Your task to perform on an android device: turn vacation reply on in the gmail app Image 0: 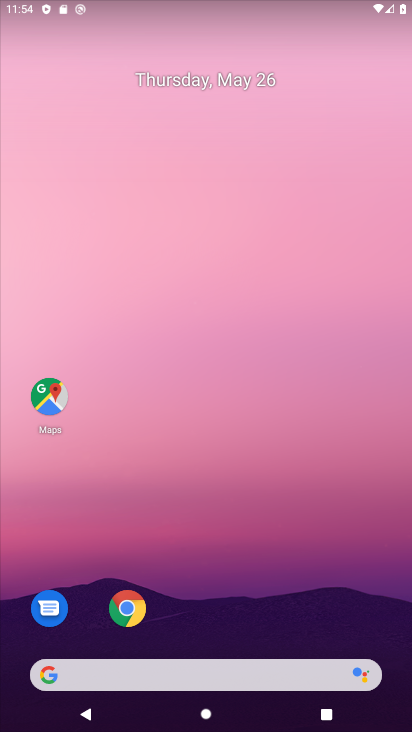
Step 0: press home button
Your task to perform on an android device: turn vacation reply on in the gmail app Image 1: 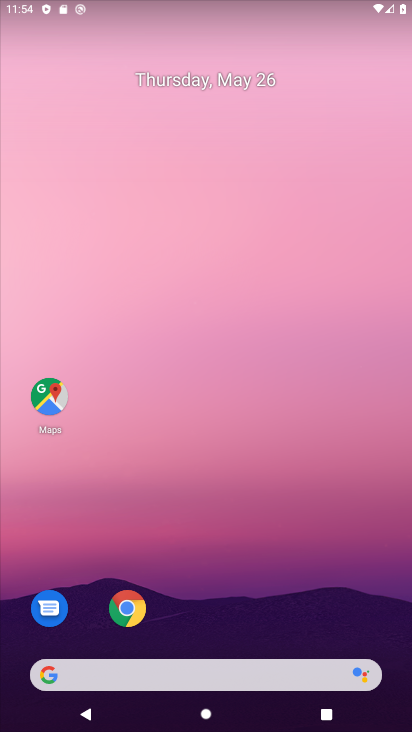
Step 1: drag from (196, 680) to (389, 123)
Your task to perform on an android device: turn vacation reply on in the gmail app Image 2: 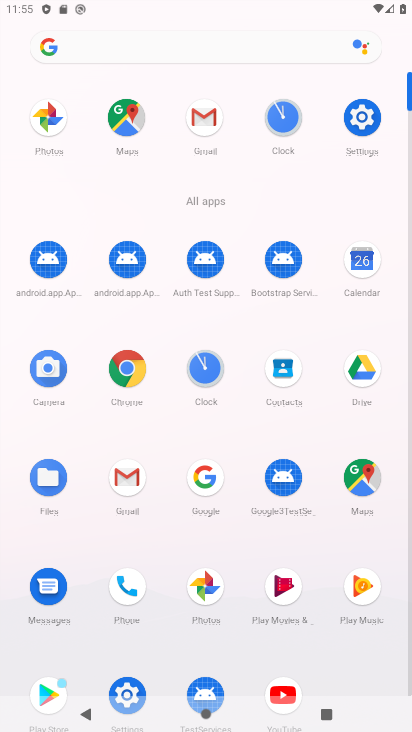
Step 2: click (201, 118)
Your task to perform on an android device: turn vacation reply on in the gmail app Image 3: 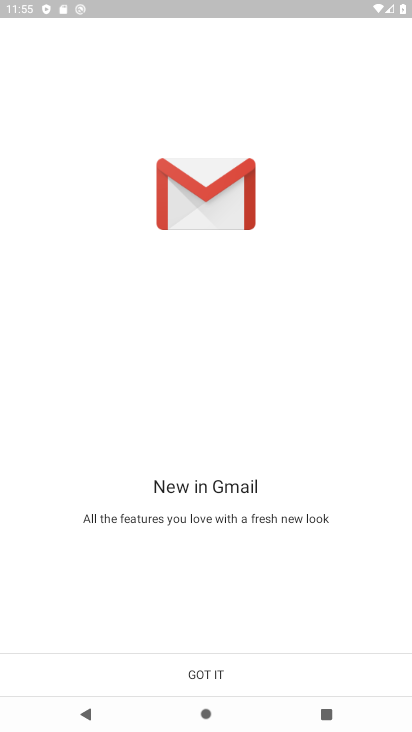
Step 3: click (207, 673)
Your task to perform on an android device: turn vacation reply on in the gmail app Image 4: 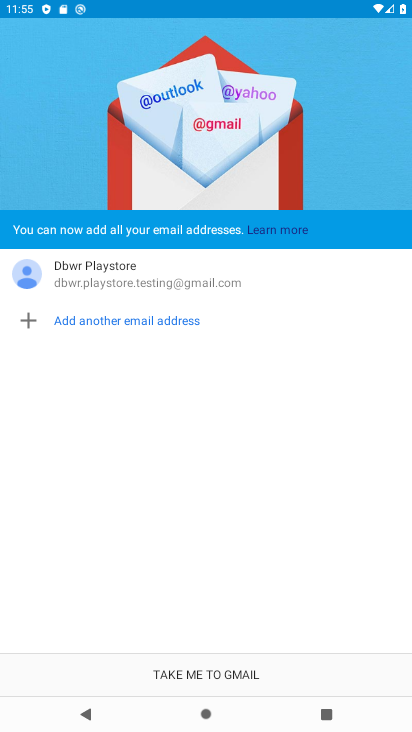
Step 4: click (207, 673)
Your task to perform on an android device: turn vacation reply on in the gmail app Image 5: 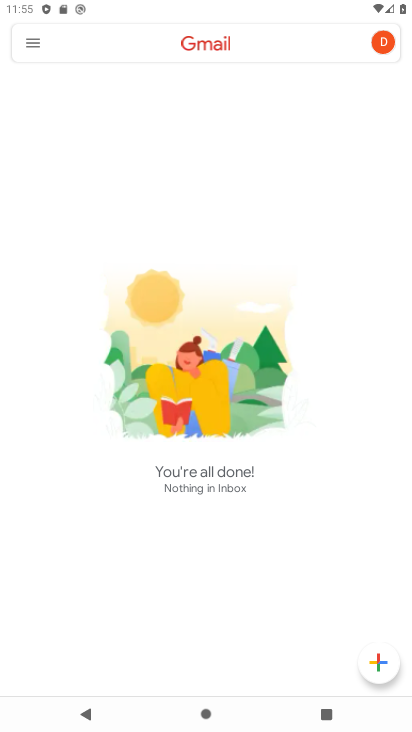
Step 5: click (35, 47)
Your task to perform on an android device: turn vacation reply on in the gmail app Image 6: 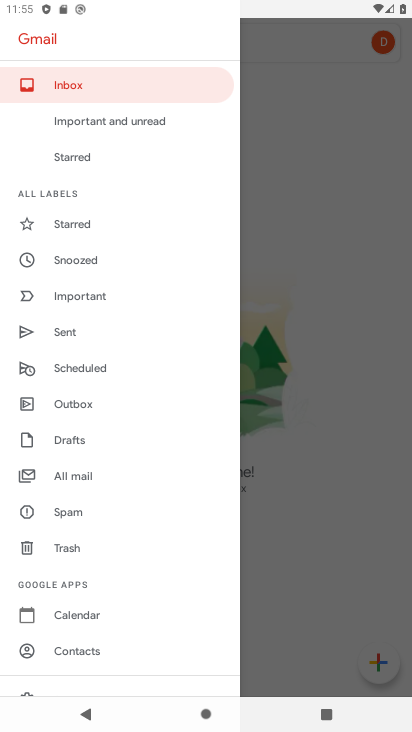
Step 6: drag from (174, 572) to (223, 339)
Your task to perform on an android device: turn vacation reply on in the gmail app Image 7: 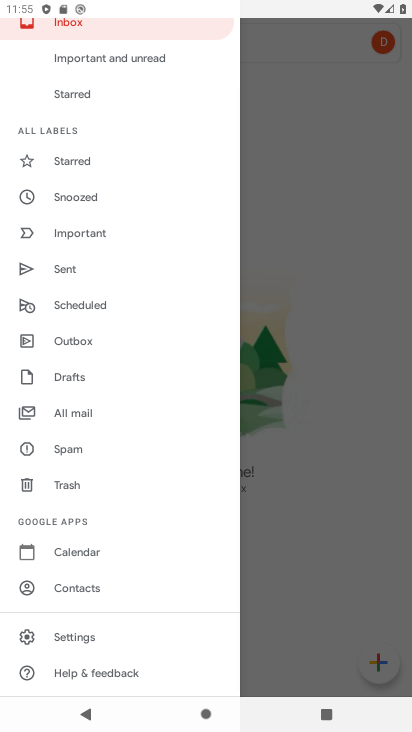
Step 7: click (83, 630)
Your task to perform on an android device: turn vacation reply on in the gmail app Image 8: 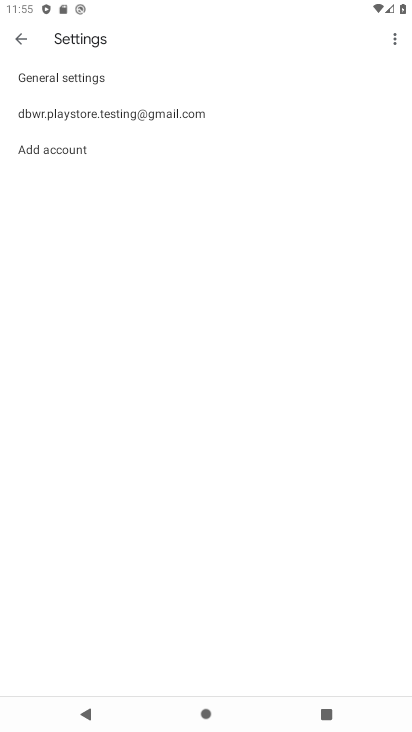
Step 8: click (171, 116)
Your task to perform on an android device: turn vacation reply on in the gmail app Image 9: 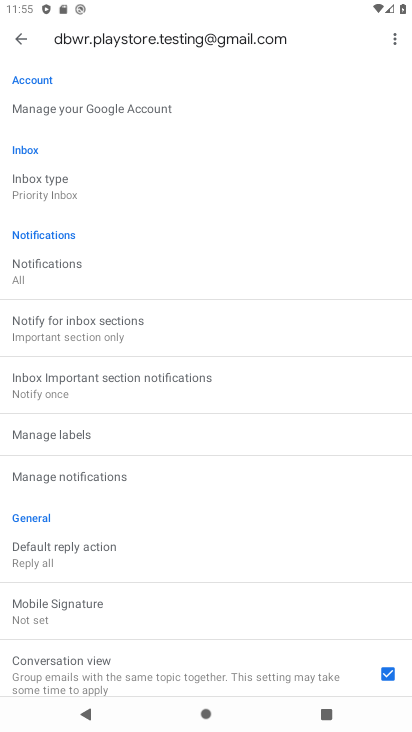
Step 9: drag from (179, 530) to (257, 170)
Your task to perform on an android device: turn vacation reply on in the gmail app Image 10: 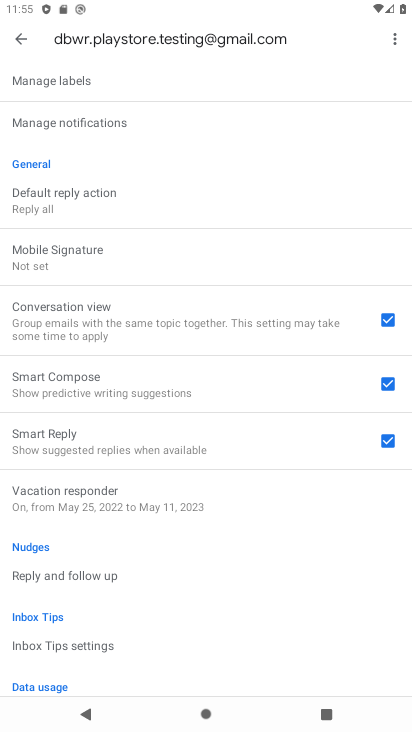
Step 10: click (105, 496)
Your task to perform on an android device: turn vacation reply on in the gmail app Image 11: 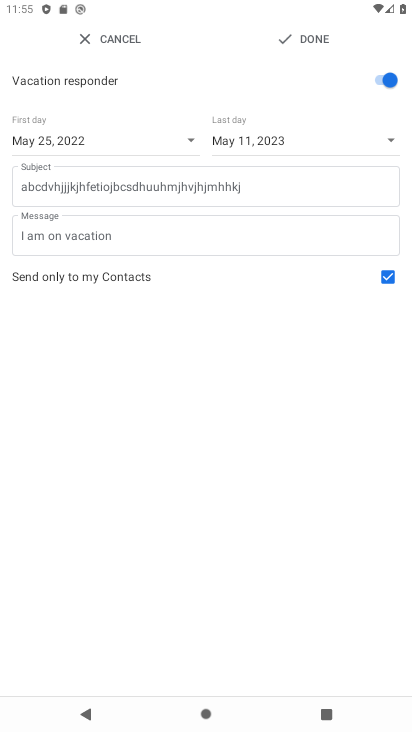
Step 11: task complete